Your task to perform on an android device: Search for sushi restaurants on Maps Image 0: 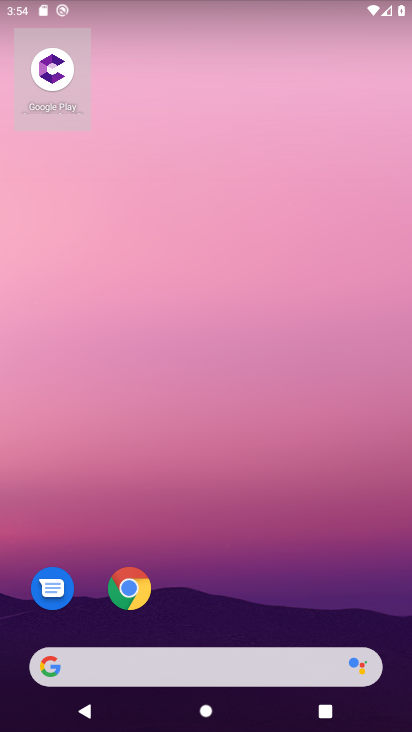
Step 0: drag from (201, 617) to (196, 1)
Your task to perform on an android device: Search for sushi restaurants on Maps Image 1: 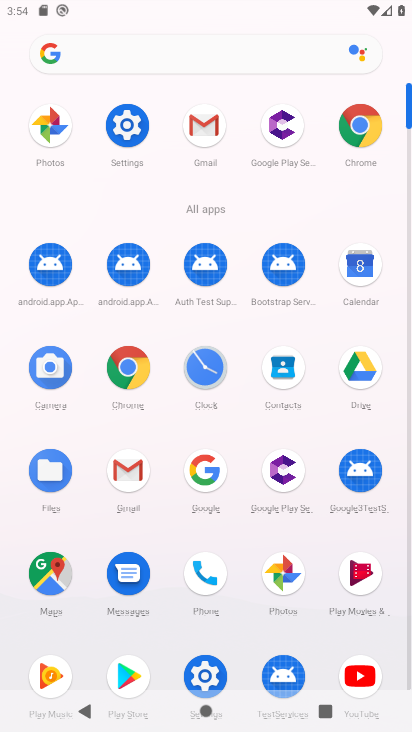
Step 1: click (41, 557)
Your task to perform on an android device: Search for sushi restaurants on Maps Image 2: 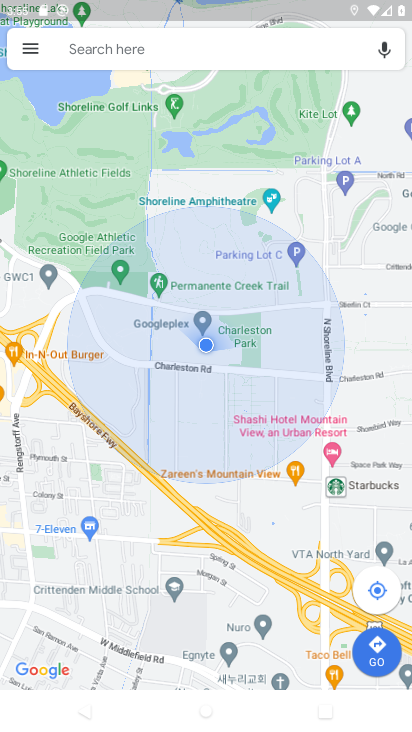
Step 2: click (199, 40)
Your task to perform on an android device: Search for sushi restaurants on Maps Image 3: 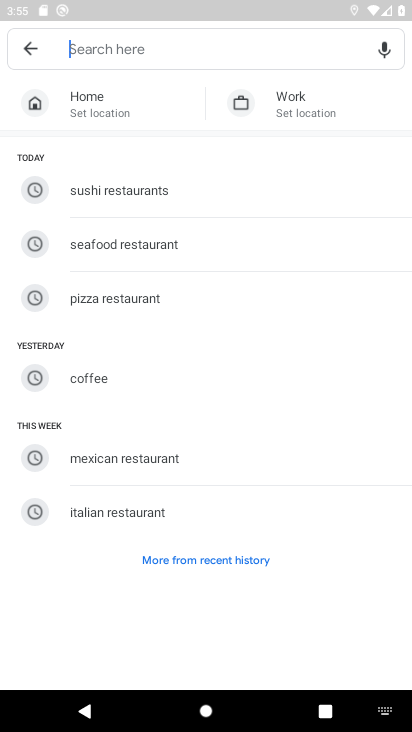
Step 3: type "sushi restaurants"
Your task to perform on an android device: Search for sushi restaurants on Maps Image 4: 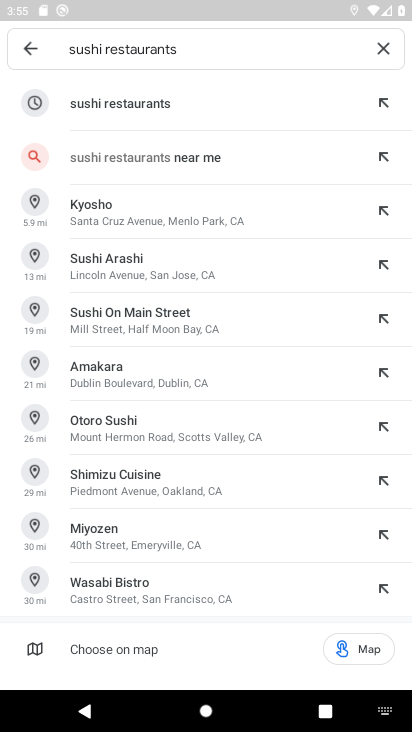
Step 4: click (138, 110)
Your task to perform on an android device: Search for sushi restaurants on Maps Image 5: 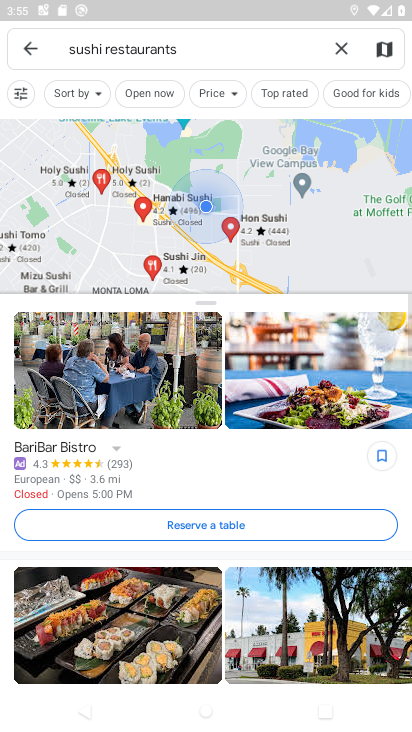
Step 5: task complete